Your task to perform on an android device: Go to Reddit.com Image 0: 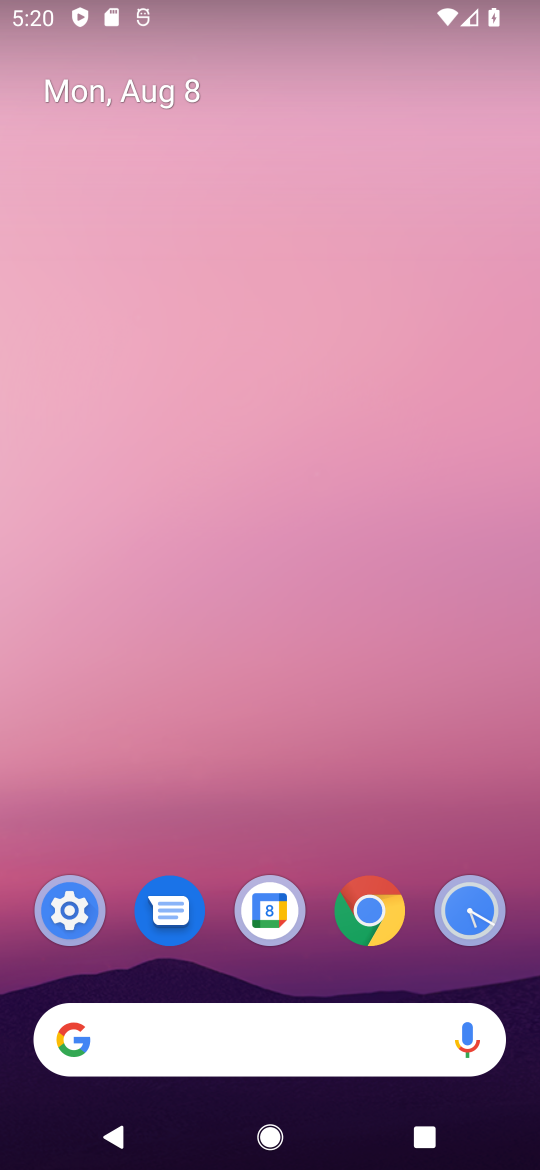
Step 0: click (368, 911)
Your task to perform on an android device: Go to Reddit.com Image 1: 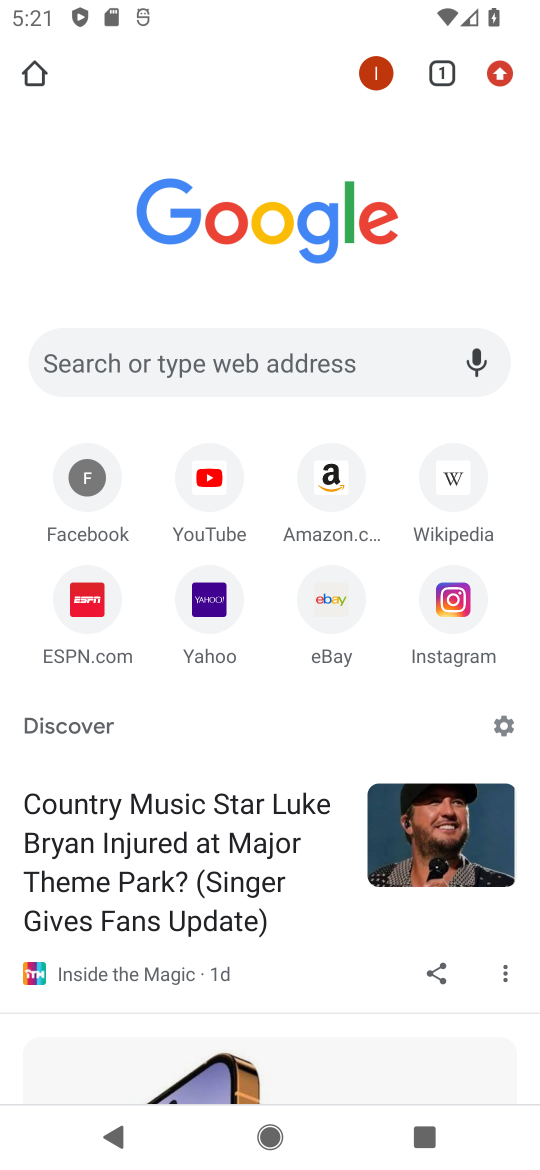
Step 1: click (274, 366)
Your task to perform on an android device: Go to Reddit.com Image 2: 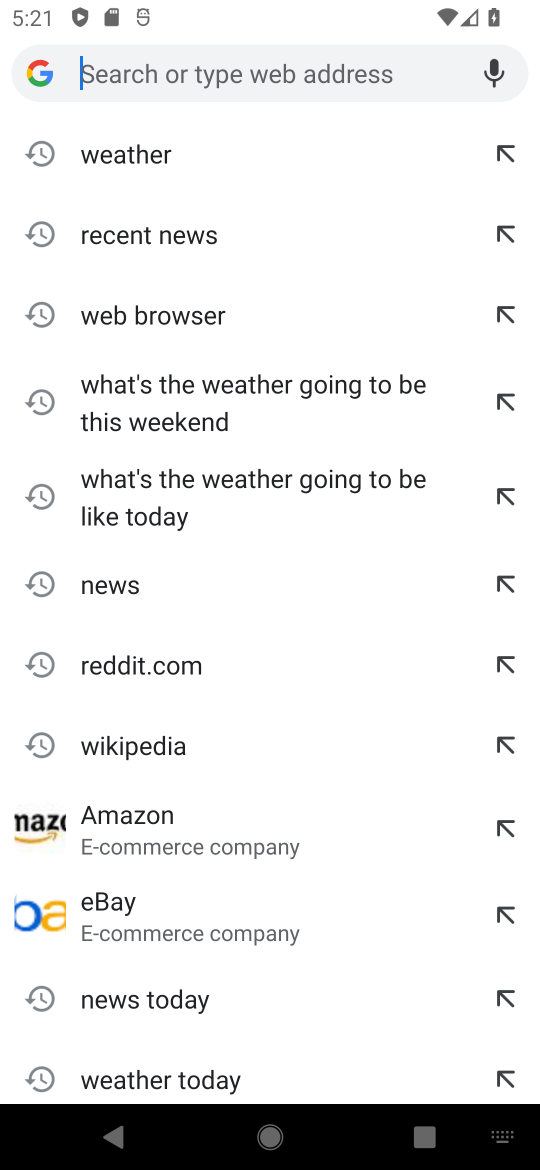
Step 2: type "Reddit.com"
Your task to perform on an android device: Go to Reddit.com Image 3: 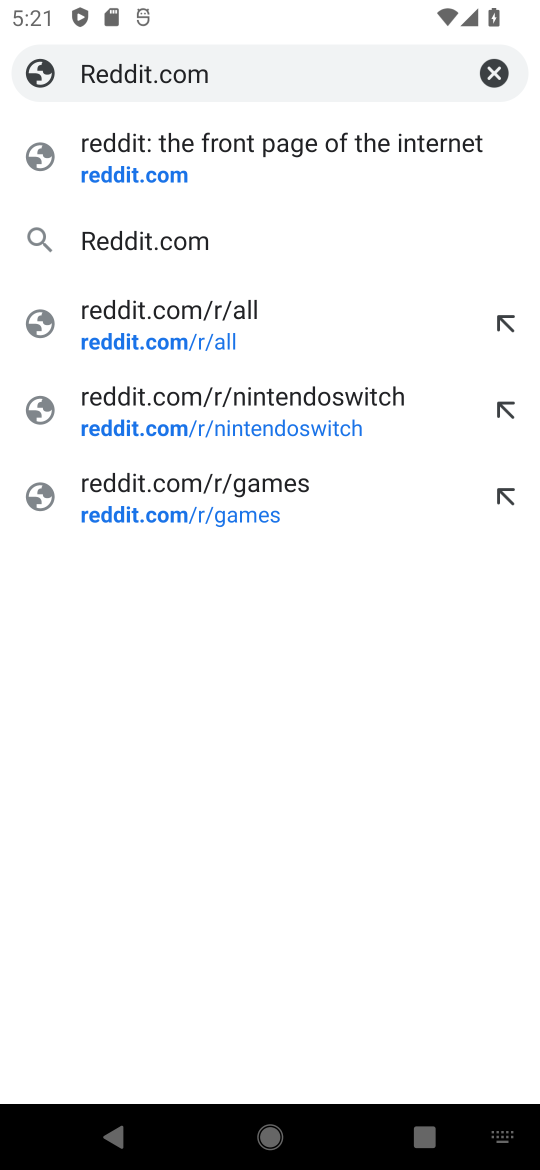
Step 3: click (155, 242)
Your task to perform on an android device: Go to Reddit.com Image 4: 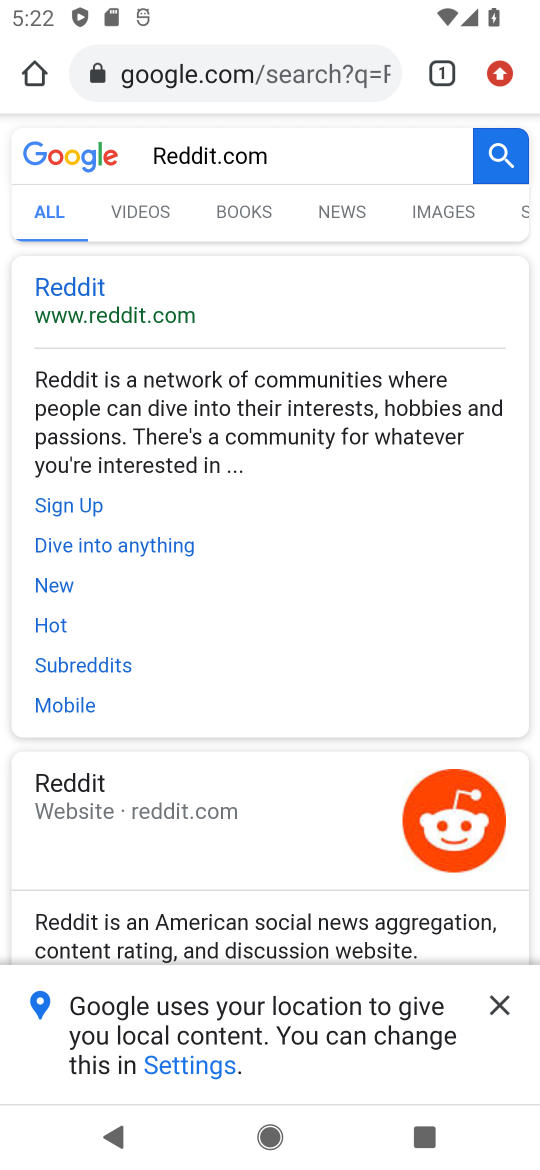
Step 4: click (112, 300)
Your task to perform on an android device: Go to Reddit.com Image 5: 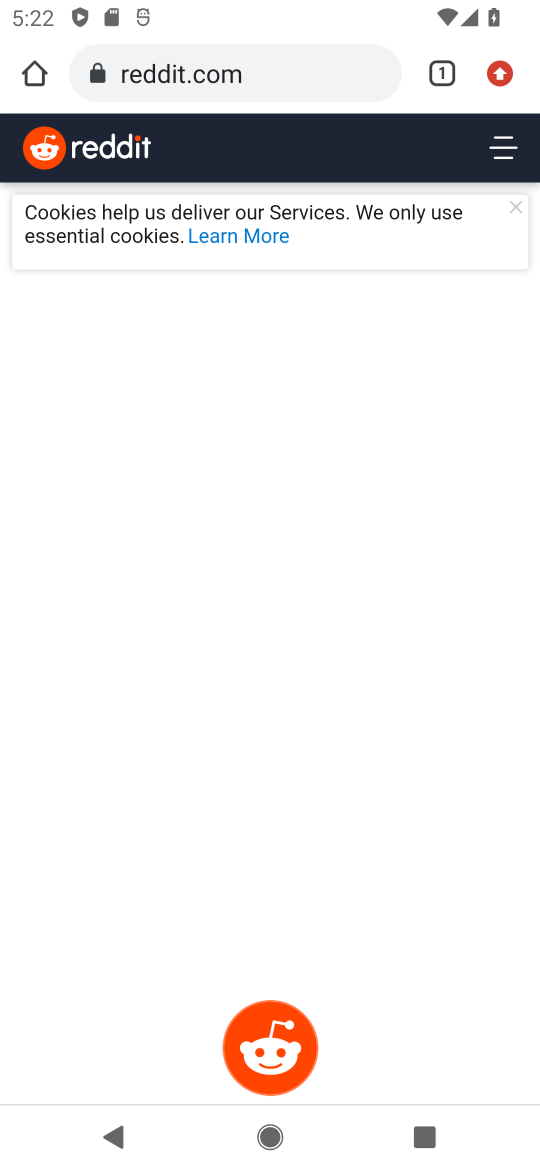
Step 5: task complete